Your task to perform on an android device: Search for sushi restaurants on Maps Image 0: 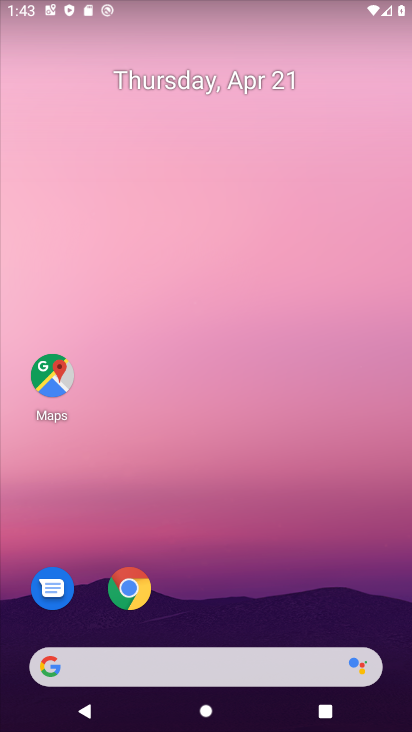
Step 0: drag from (227, 596) to (200, 169)
Your task to perform on an android device: Search for sushi restaurants on Maps Image 1: 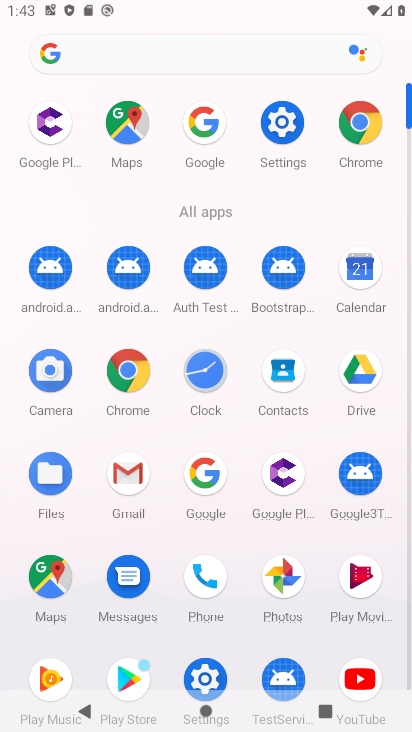
Step 1: click (53, 574)
Your task to perform on an android device: Search for sushi restaurants on Maps Image 2: 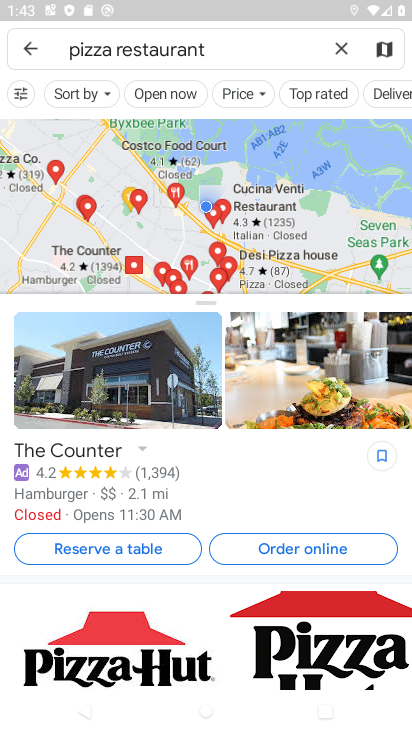
Step 2: click (346, 50)
Your task to perform on an android device: Search for sushi restaurants on Maps Image 3: 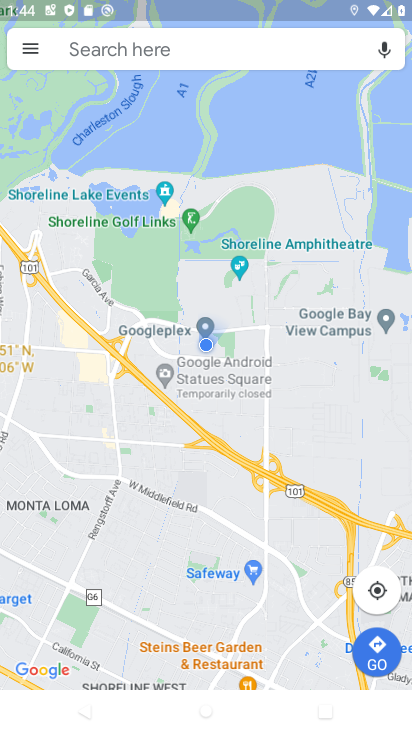
Step 3: click (250, 55)
Your task to perform on an android device: Search for sushi restaurants on Maps Image 4: 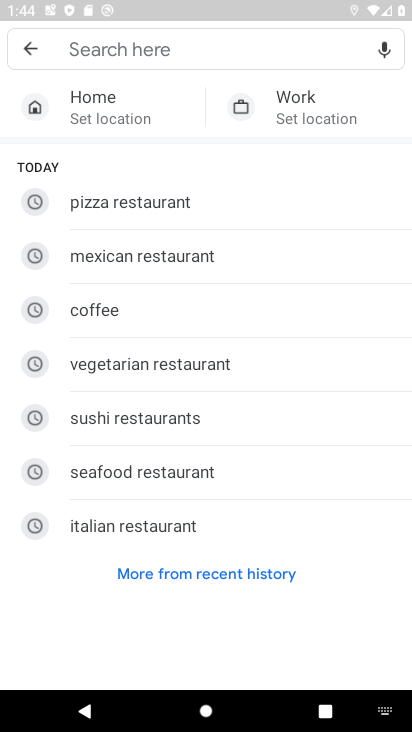
Step 4: click (199, 418)
Your task to perform on an android device: Search for sushi restaurants on Maps Image 5: 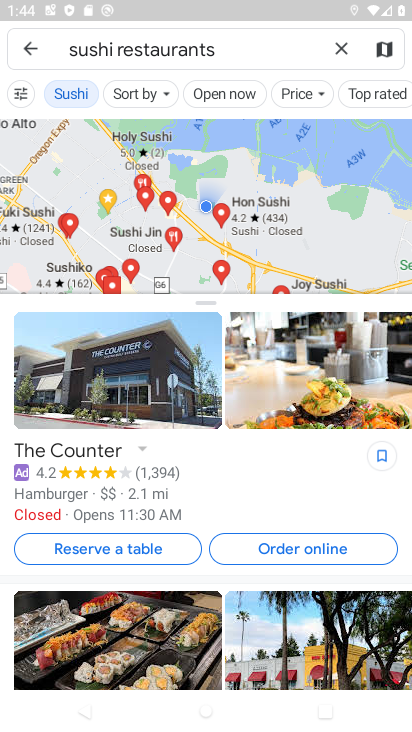
Step 5: task complete